Your task to perform on an android device: Do I have any events tomorrow? Image 0: 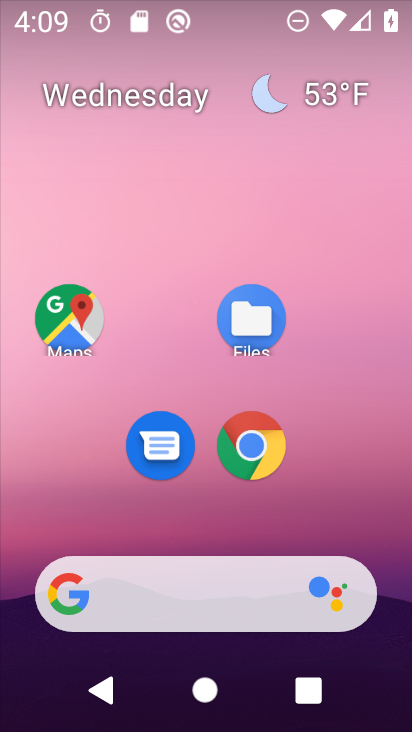
Step 0: drag from (355, 434) to (296, 36)
Your task to perform on an android device: Do I have any events tomorrow? Image 1: 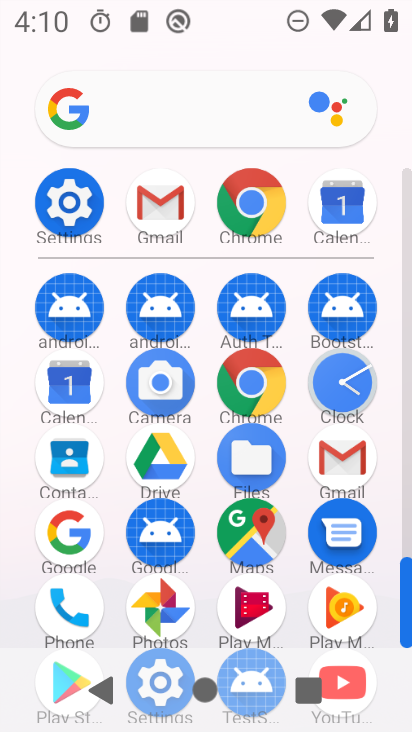
Step 1: click (334, 197)
Your task to perform on an android device: Do I have any events tomorrow? Image 2: 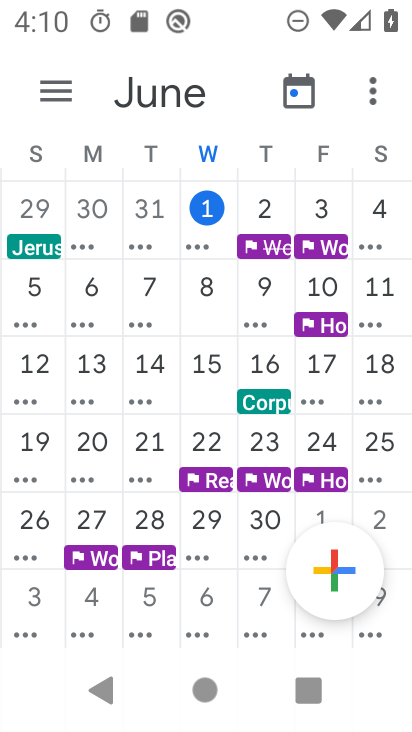
Step 2: click (269, 218)
Your task to perform on an android device: Do I have any events tomorrow? Image 3: 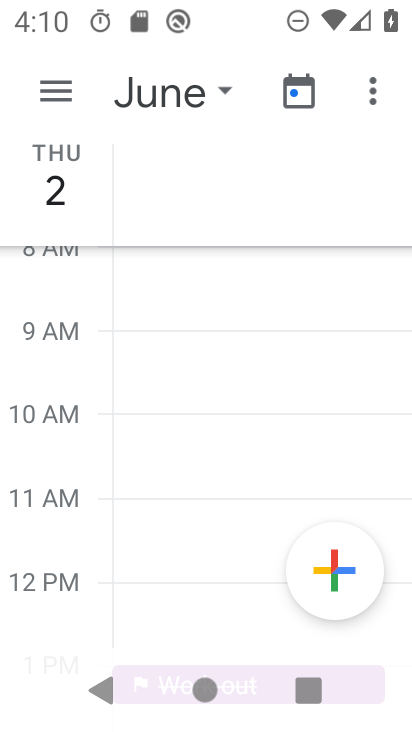
Step 3: drag from (193, 386) to (197, 594)
Your task to perform on an android device: Do I have any events tomorrow? Image 4: 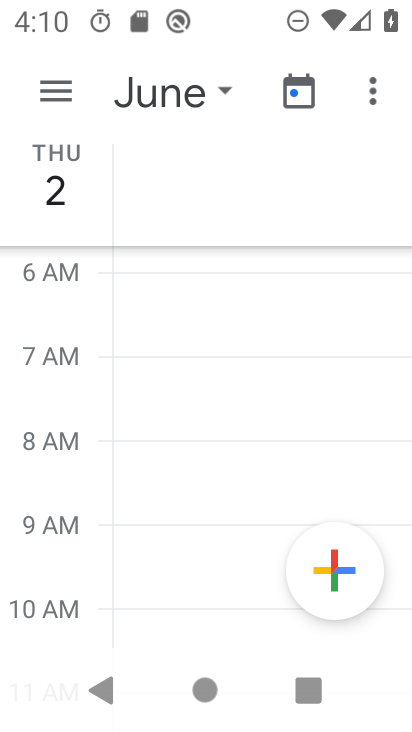
Step 4: drag from (197, 594) to (203, 730)
Your task to perform on an android device: Do I have any events tomorrow? Image 5: 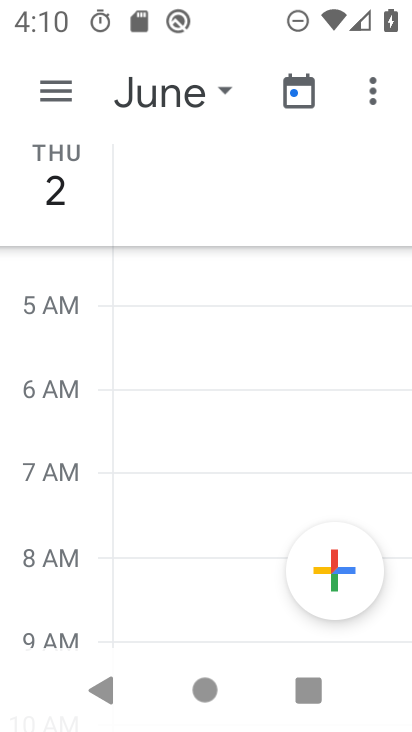
Step 5: drag from (265, 338) to (294, 585)
Your task to perform on an android device: Do I have any events tomorrow? Image 6: 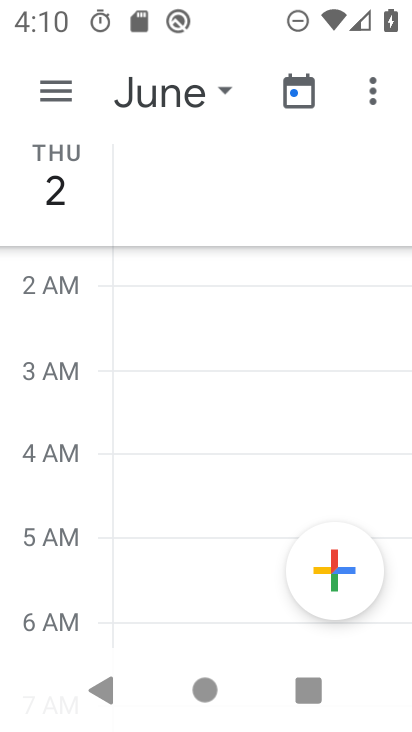
Step 6: drag from (172, 396) to (182, 582)
Your task to perform on an android device: Do I have any events tomorrow? Image 7: 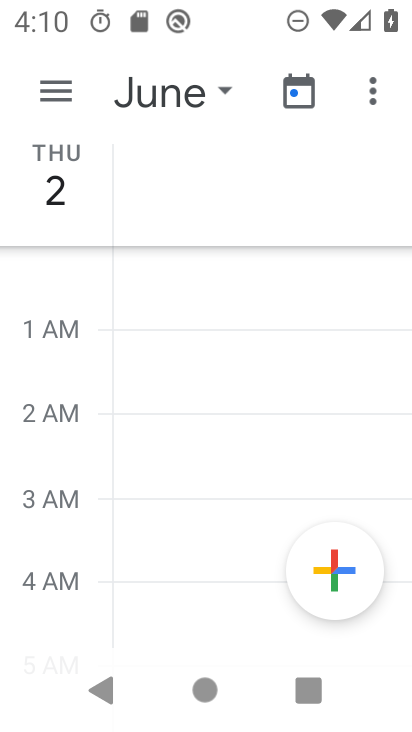
Step 7: drag from (176, 393) to (204, 508)
Your task to perform on an android device: Do I have any events tomorrow? Image 8: 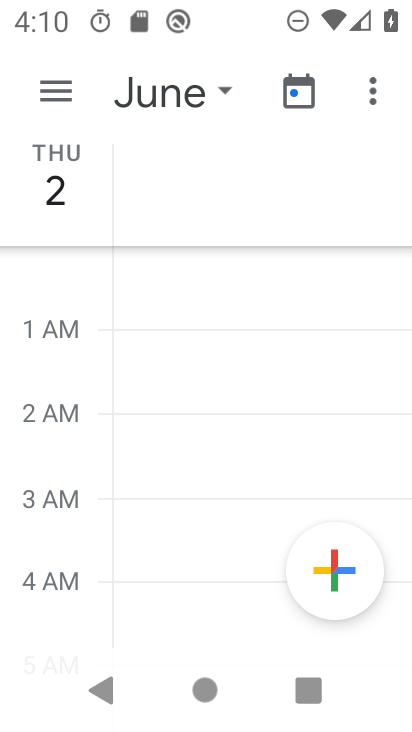
Step 8: drag from (216, 362) to (231, 449)
Your task to perform on an android device: Do I have any events tomorrow? Image 9: 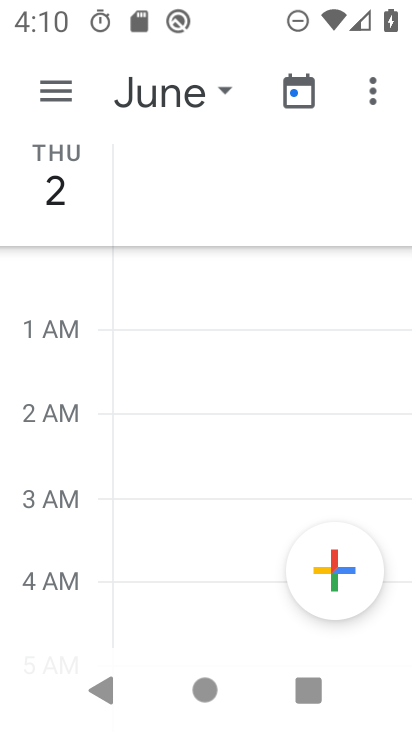
Step 9: click (196, 111)
Your task to perform on an android device: Do I have any events tomorrow? Image 10: 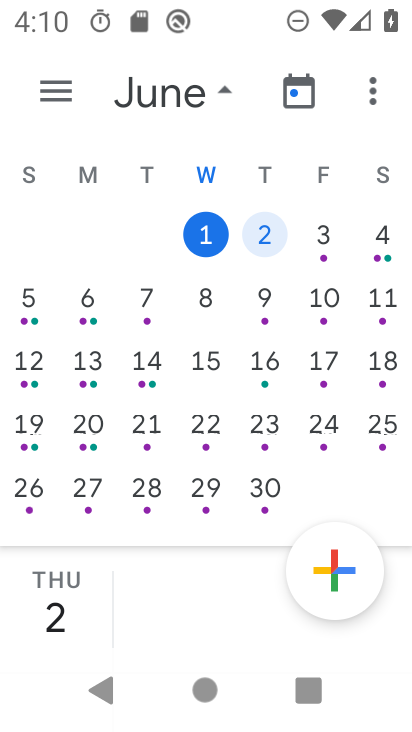
Step 10: click (269, 214)
Your task to perform on an android device: Do I have any events tomorrow? Image 11: 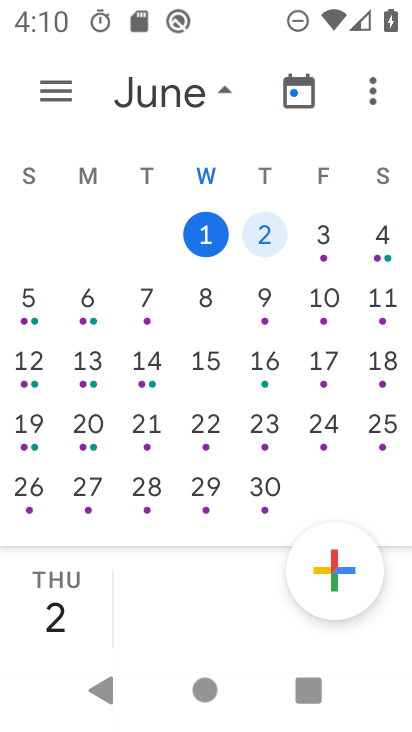
Step 11: click (269, 214)
Your task to perform on an android device: Do I have any events tomorrow? Image 12: 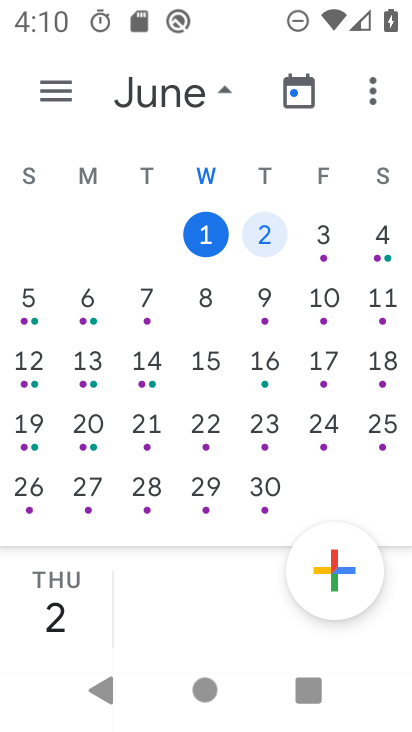
Step 12: click (215, 618)
Your task to perform on an android device: Do I have any events tomorrow? Image 13: 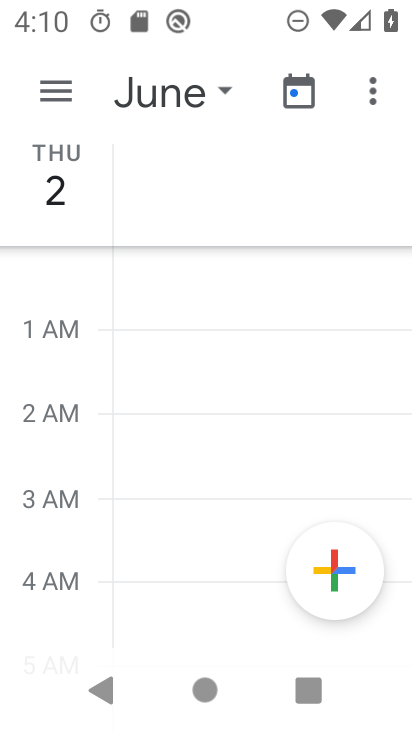
Step 13: task complete